Your task to perform on an android device: open app "Microsoft Excel" Image 0: 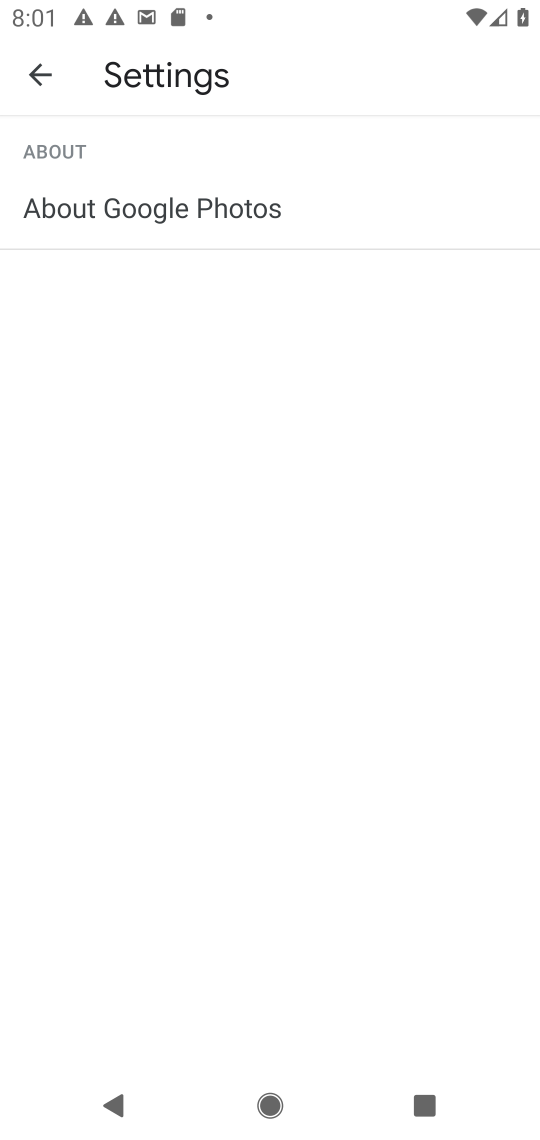
Step 0: press home button
Your task to perform on an android device: open app "Microsoft Excel" Image 1: 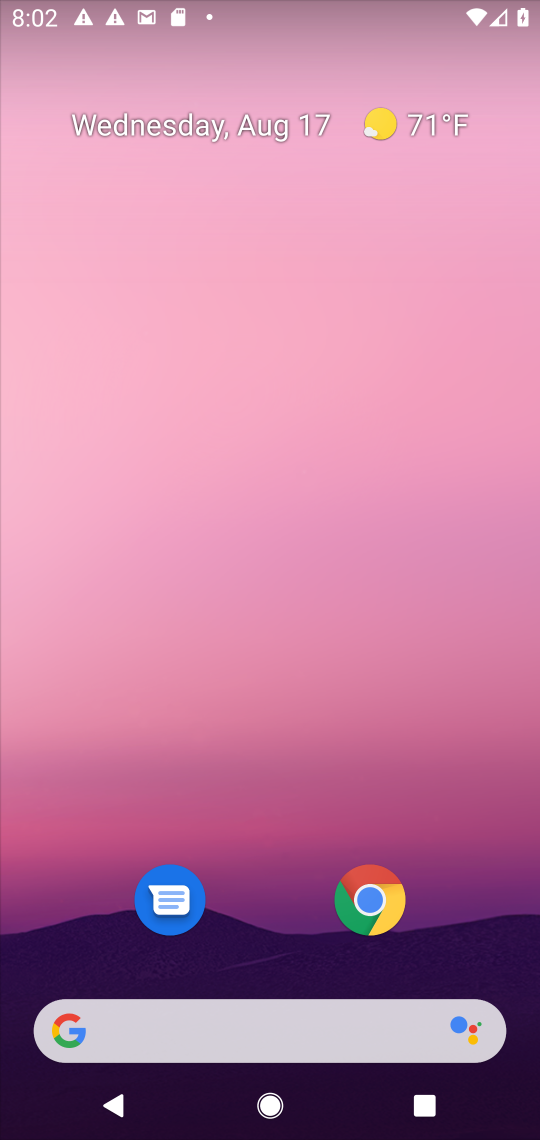
Step 1: drag from (226, 914) to (419, 66)
Your task to perform on an android device: open app "Microsoft Excel" Image 2: 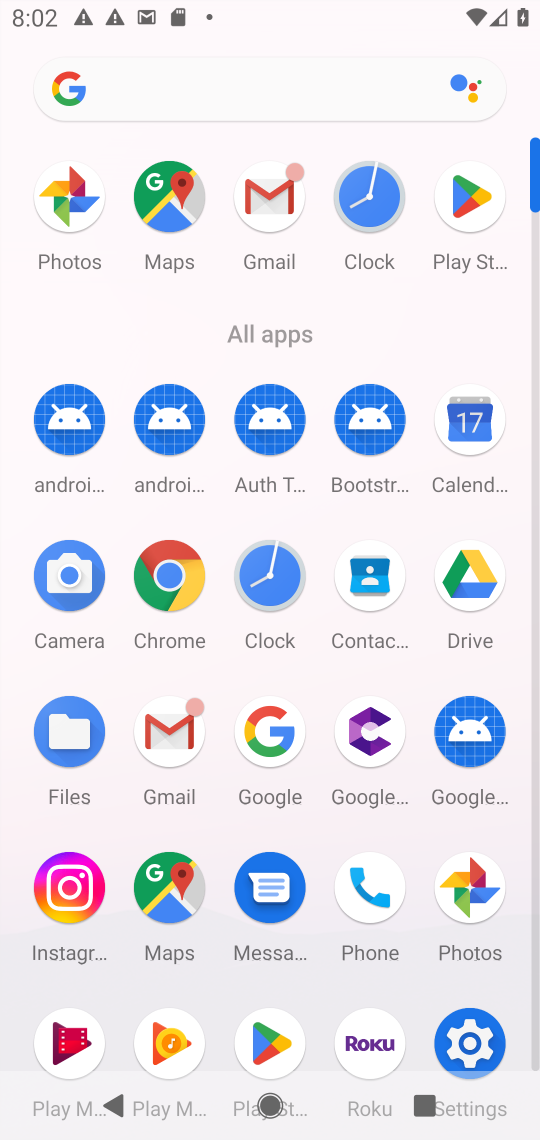
Step 2: click (474, 210)
Your task to perform on an android device: open app "Microsoft Excel" Image 3: 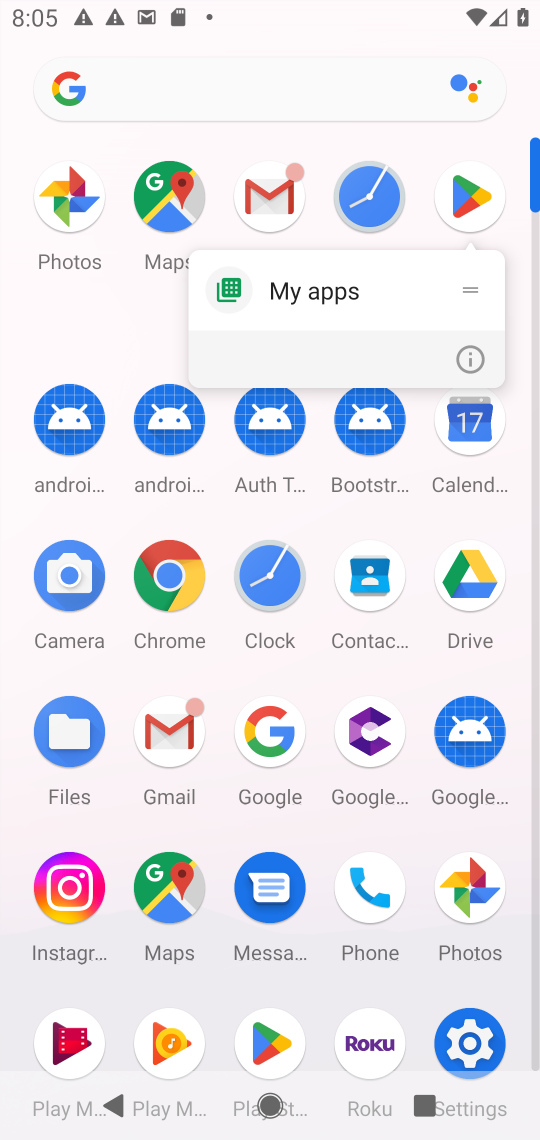
Step 3: click (478, 215)
Your task to perform on an android device: open app "Microsoft Excel" Image 4: 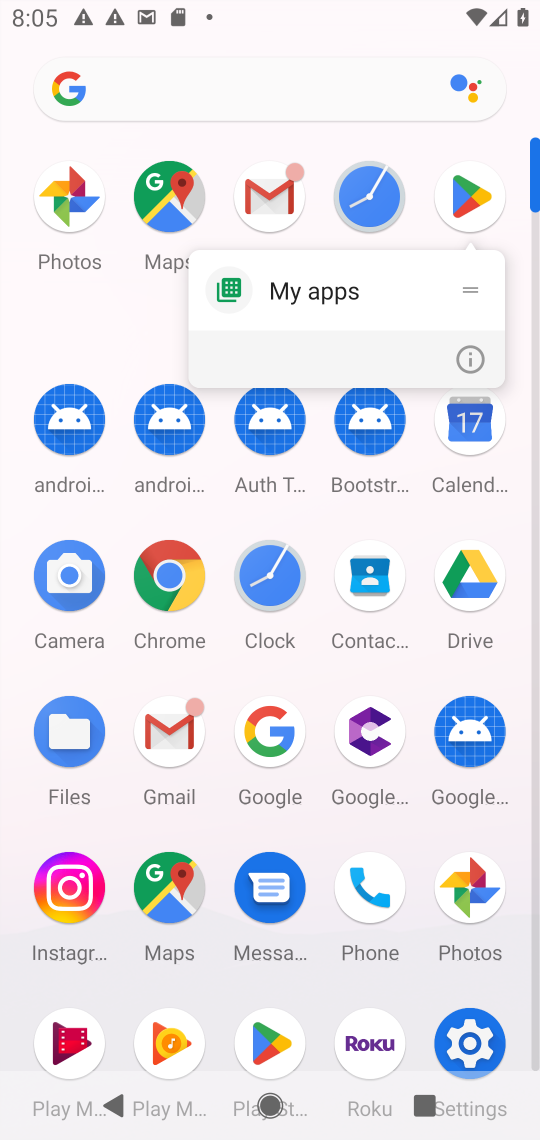
Step 4: click (460, 190)
Your task to perform on an android device: open app "Microsoft Excel" Image 5: 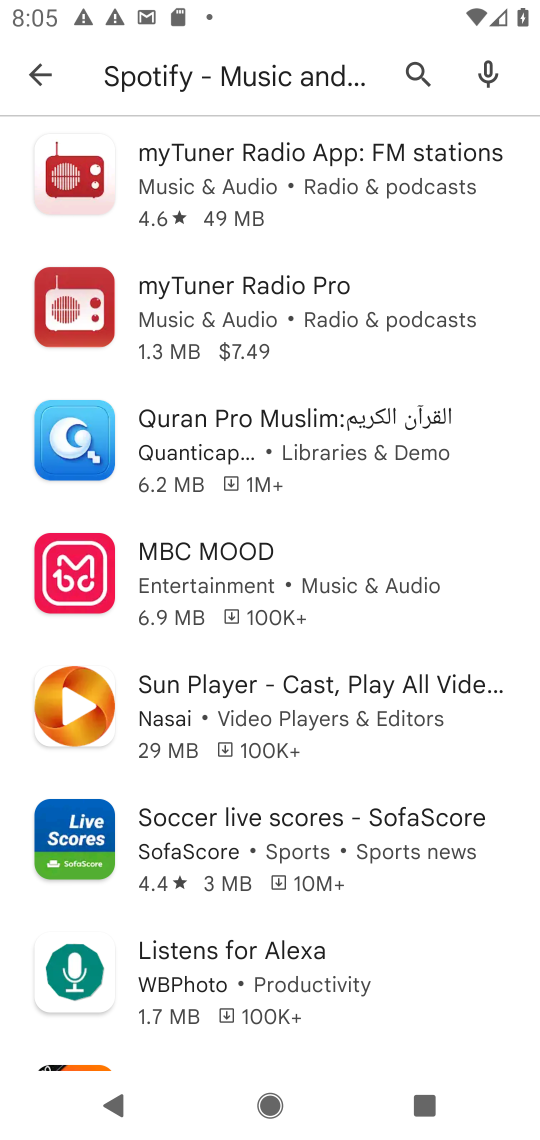
Step 5: click (43, 83)
Your task to perform on an android device: open app "Microsoft Excel" Image 6: 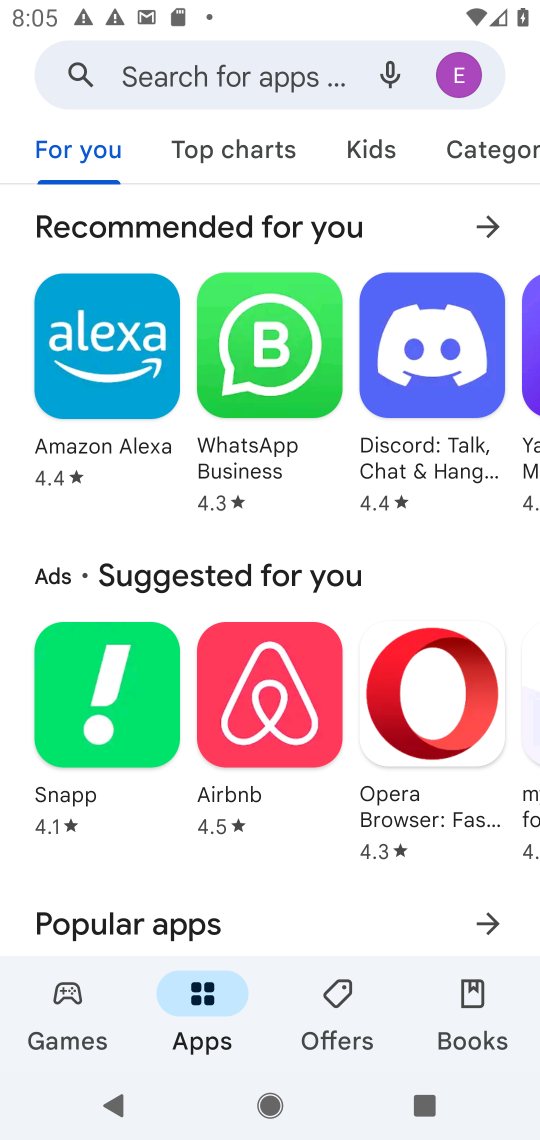
Step 6: type "Microsoft Excel"
Your task to perform on an android device: open app "Microsoft Excel" Image 7: 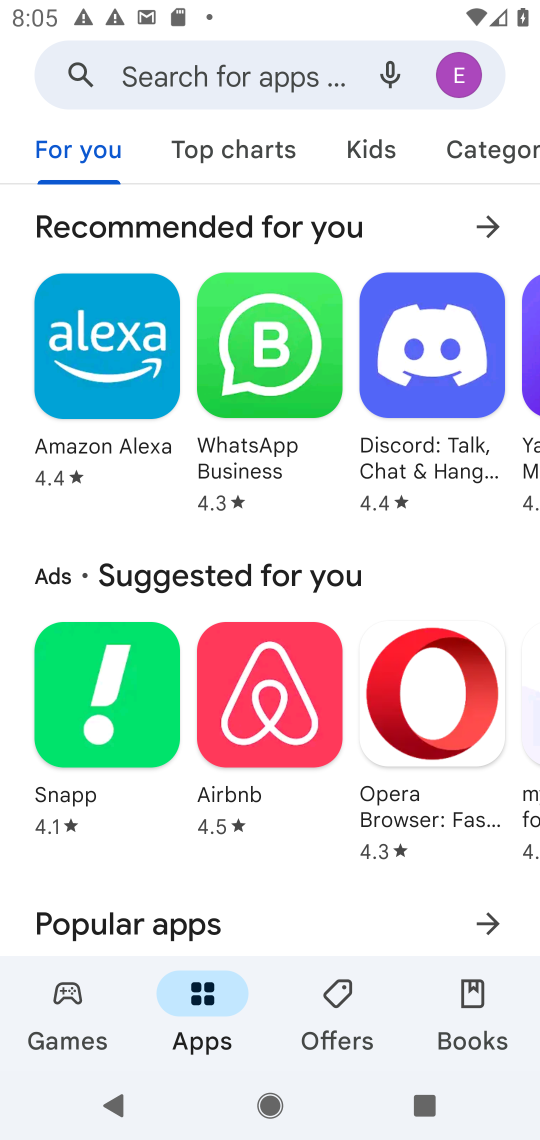
Step 7: click (195, 80)
Your task to perform on an android device: open app "Microsoft Excel" Image 8: 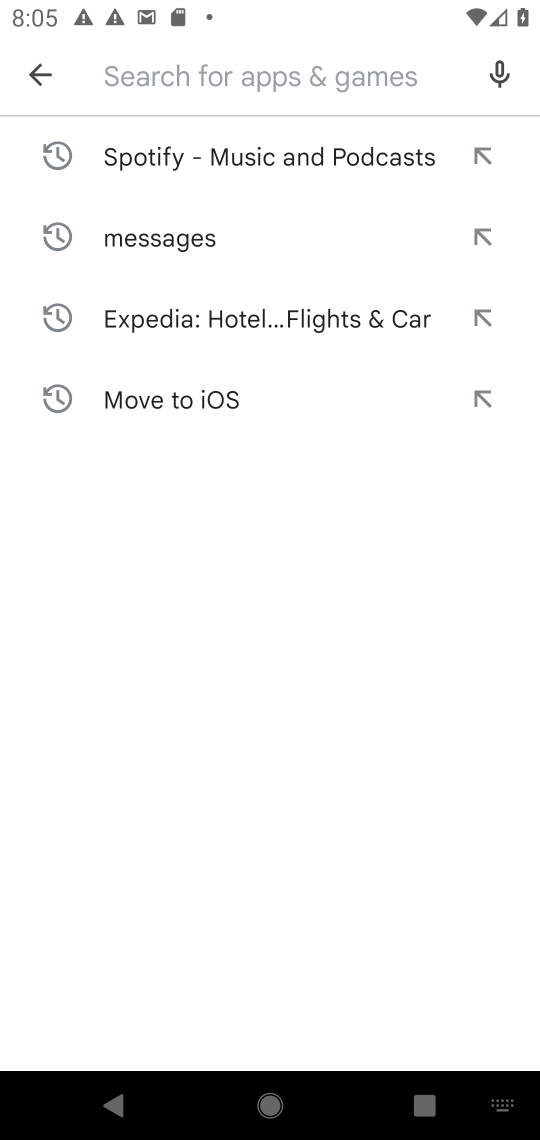
Step 8: type "Microsoft Excel"
Your task to perform on an android device: open app "Microsoft Excel" Image 9: 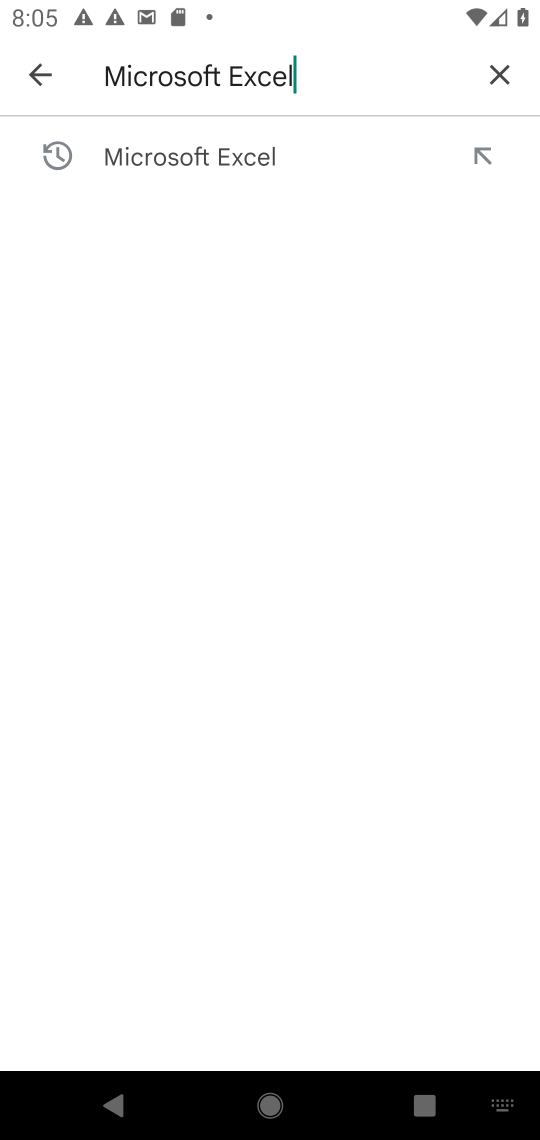
Step 9: press enter
Your task to perform on an android device: open app "Microsoft Excel" Image 10: 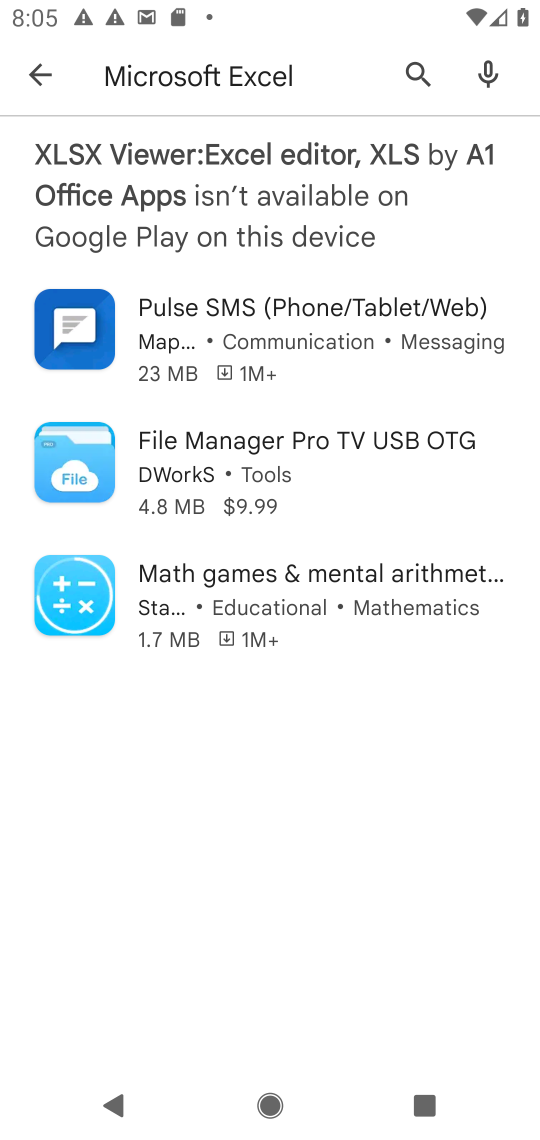
Step 10: task complete